Your task to perform on an android device: change keyboard looks Image 0: 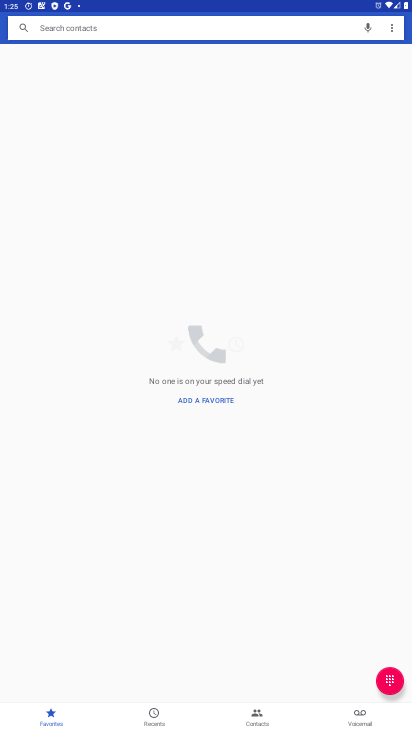
Step 0: press home button
Your task to perform on an android device: change keyboard looks Image 1: 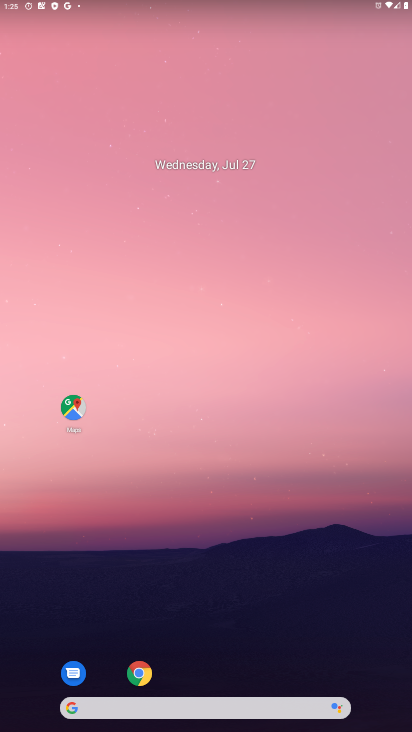
Step 1: drag from (220, 636) to (220, 112)
Your task to perform on an android device: change keyboard looks Image 2: 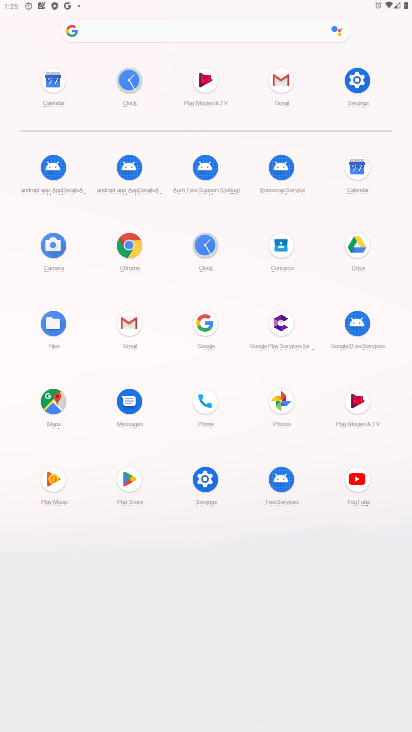
Step 2: click (360, 85)
Your task to perform on an android device: change keyboard looks Image 3: 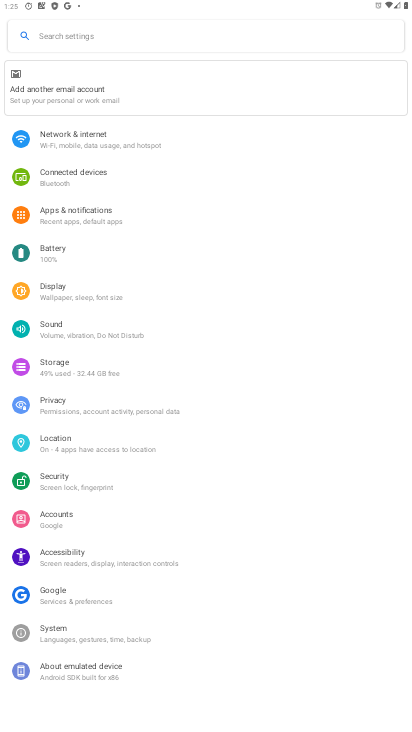
Step 3: click (54, 637)
Your task to perform on an android device: change keyboard looks Image 4: 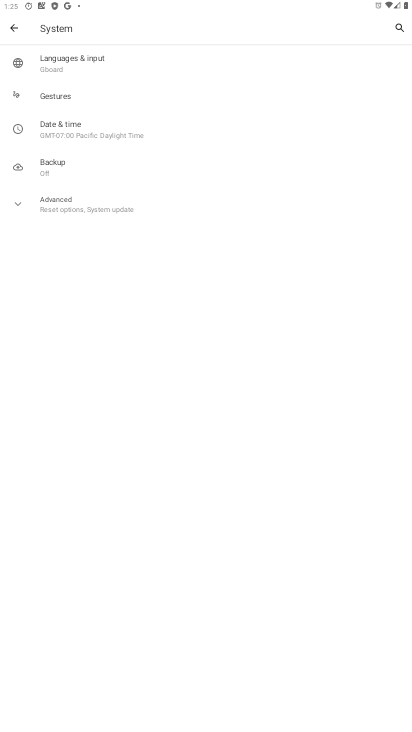
Step 4: click (48, 58)
Your task to perform on an android device: change keyboard looks Image 5: 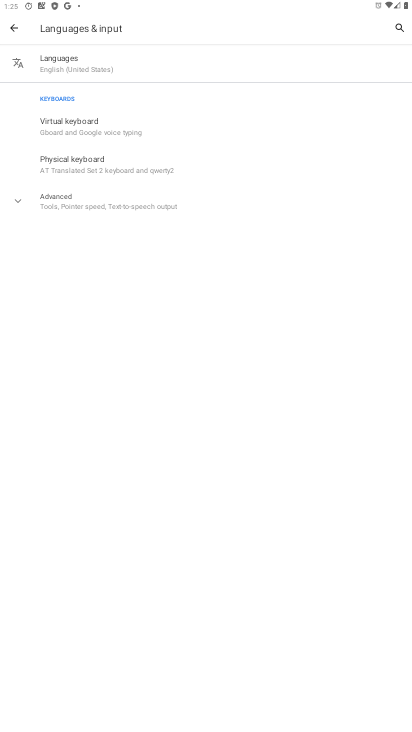
Step 5: click (48, 122)
Your task to perform on an android device: change keyboard looks Image 6: 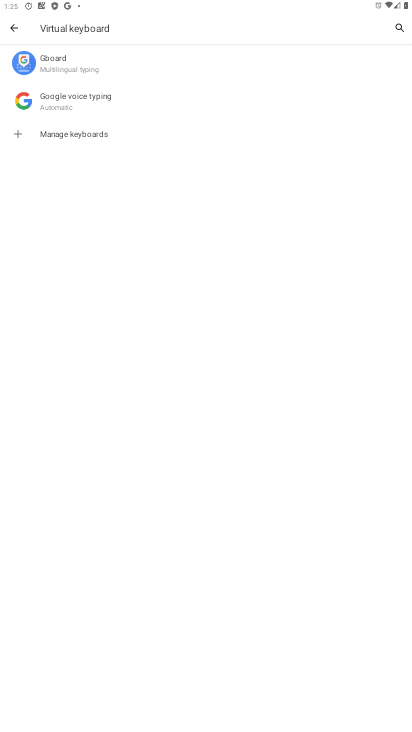
Step 6: click (40, 73)
Your task to perform on an android device: change keyboard looks Image 7: 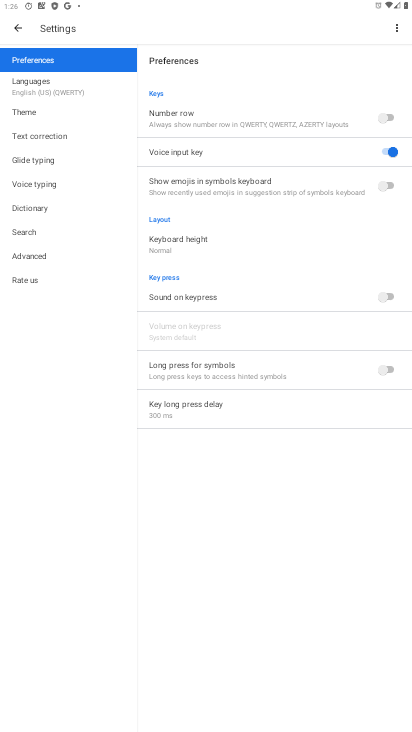
Step 7: click (27, 116)
Your task to perform on an android device: change keyboard looks Image 8: 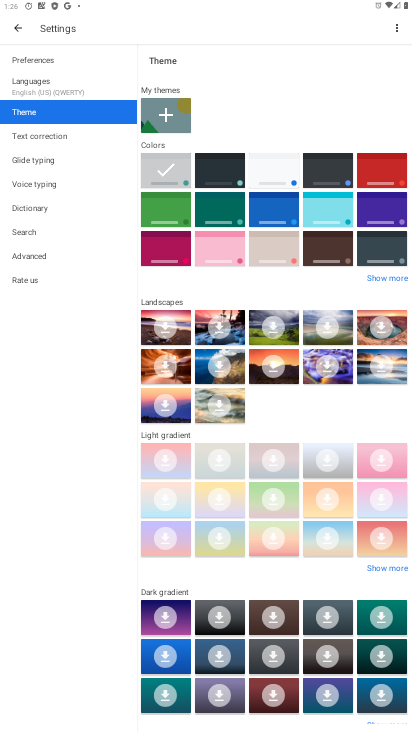
Step 8: click (219, 238)
Your task to perform on an android device: change keyboard looks Image 9: 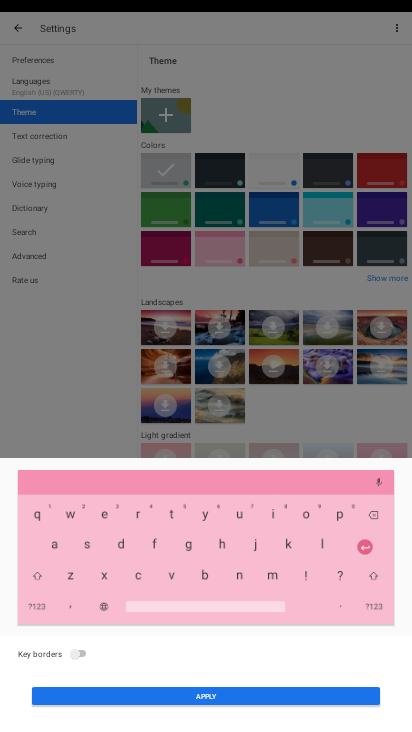
Step 9: click (207, 692)
Your task to perform on an android device: change keyboard looks Image 10: 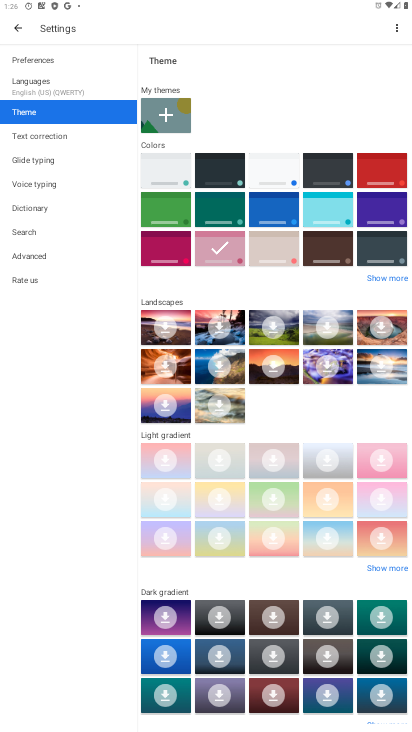
Step 10: task complete